Your task to perform on an android device: Open my contact list Image 0: 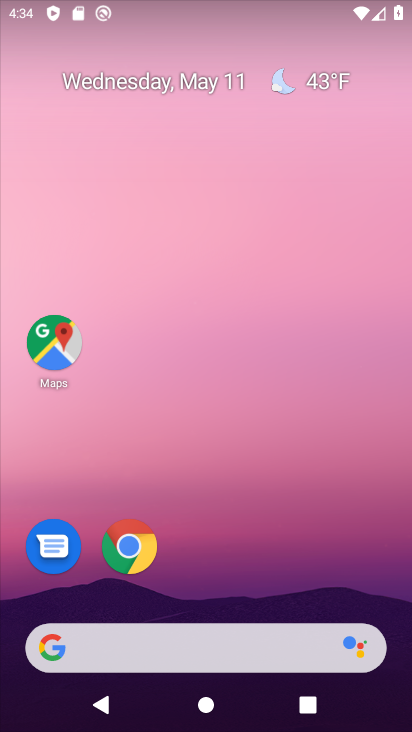
Step 0: drag from (192, 605) to (147, 270)
Your task to perform on an android device: Open my contact list Image 1: 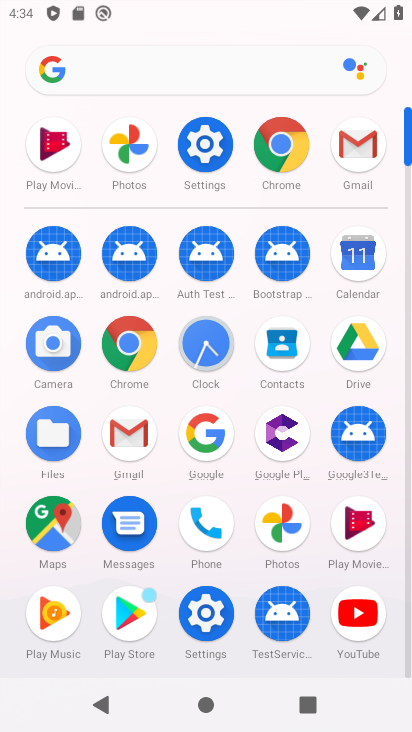
Step 1: click (272, 348)
Your task to perform on an android device: Open my contact list Image 2: 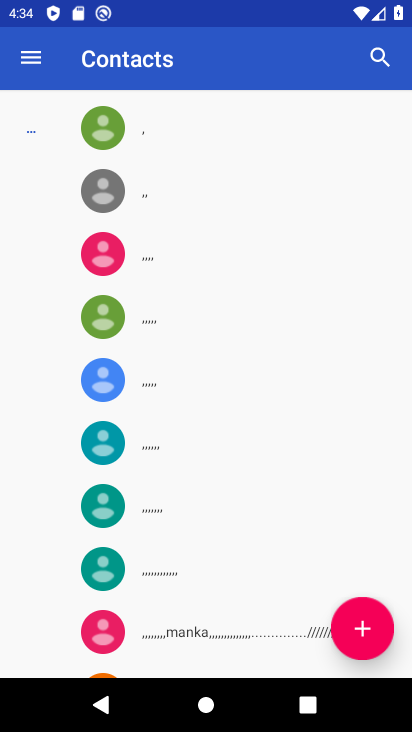
Step 2: task complete